Your task to perform on an android device: turn on location history Image 0: 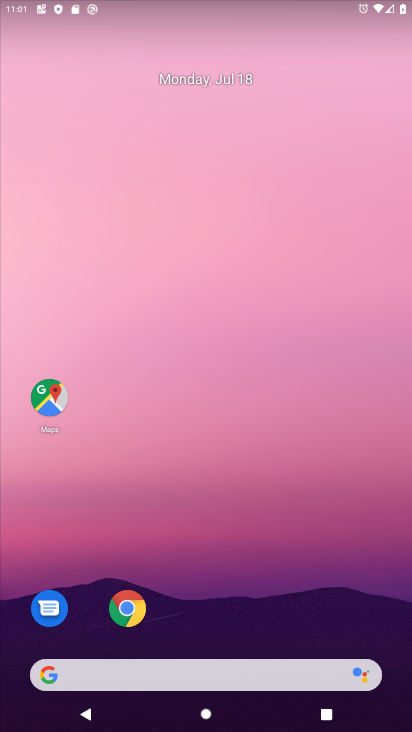
Step 0: drag from (176, 538) to (169, 167)
Your task to perform on an android device: turn on location history Image 1: 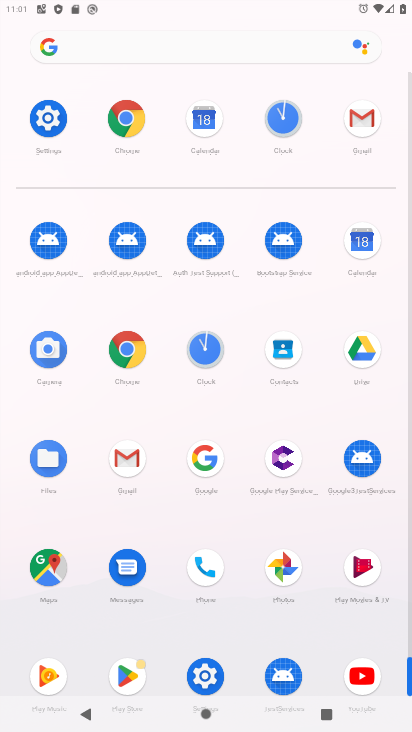
Step 1: click (213, 673)
Your task to perform on an android device: turn on location history Image 2: 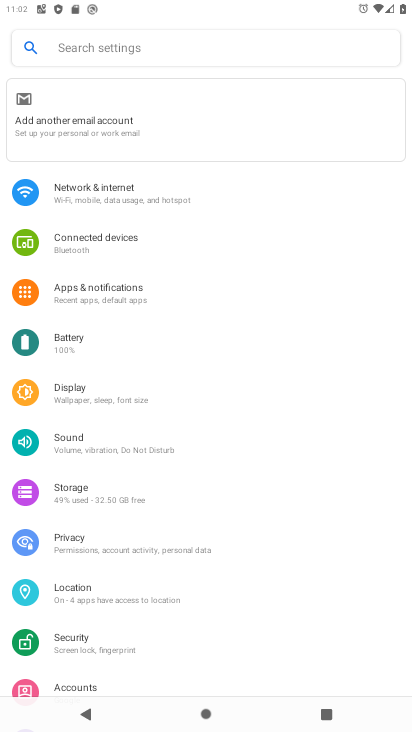
Step 2: click (121, 593)
Your task to perform on an android device: turn on location history Image 3: 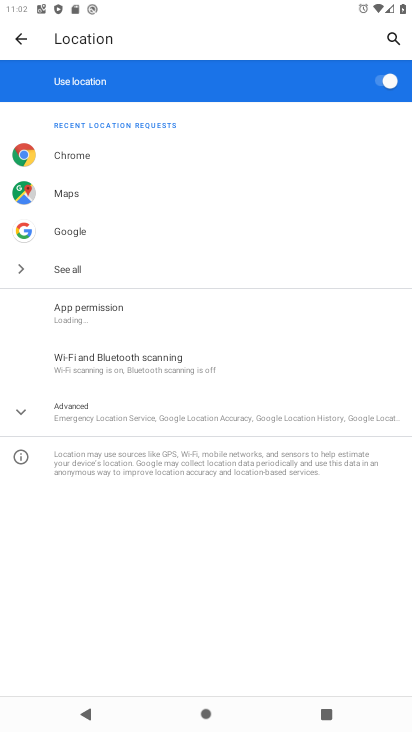
Step 3: click (94, 420)
Your task to perform on an android device: turn on location history Image 4: 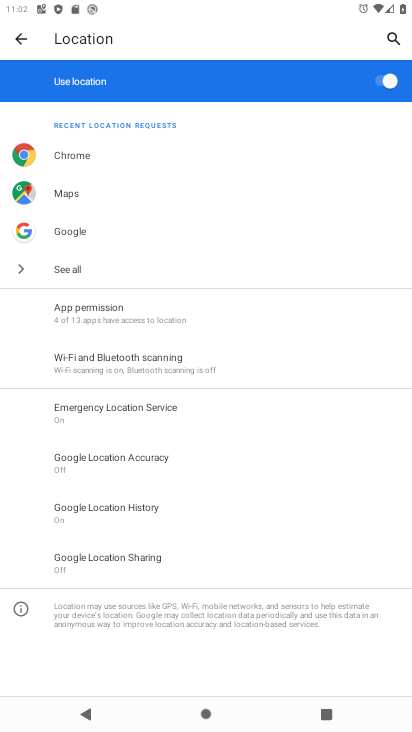
Step 4: click (131, 516)
Your task to perform on an android device: turn on location history Image 5: 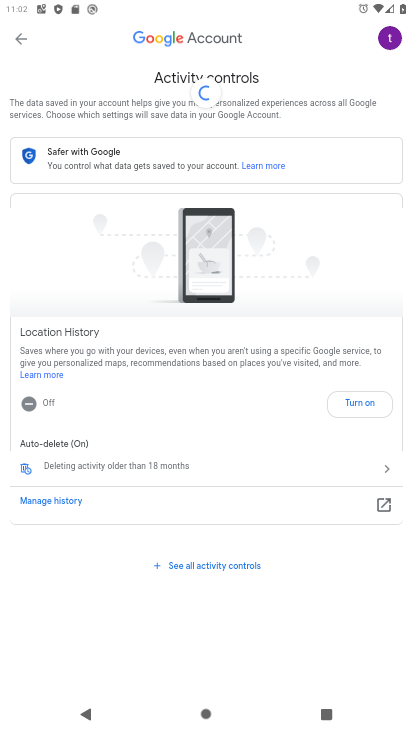
Step 5: click (371, 409)
Your task to perform on an android device: turn on location history Image 6: 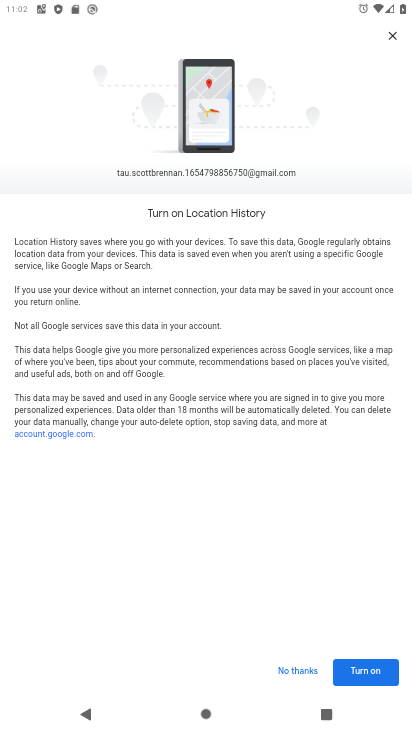
Step 6: click (376, 668)
Your task to perform on an android device: turn on location history Image 7: 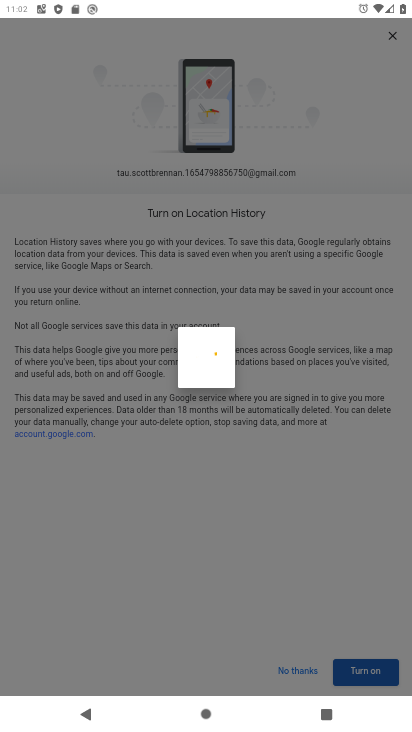
Step 7: click (375, 669)
Your task to perform on an android device: turn on location history Image 8: 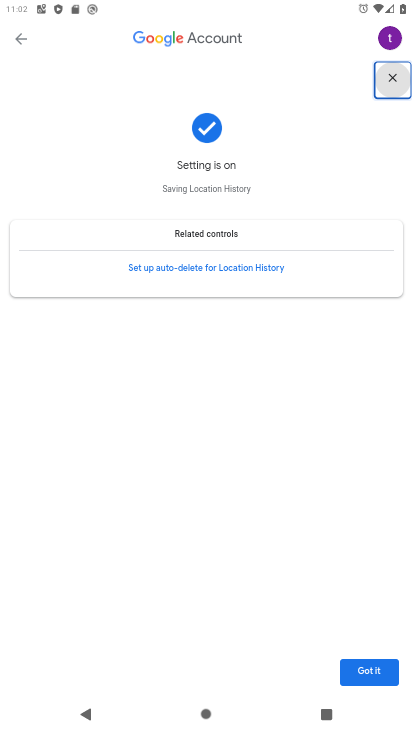
Step 8: click (367, 674)
Your task to perform on an android device: turn on location history Image 9: 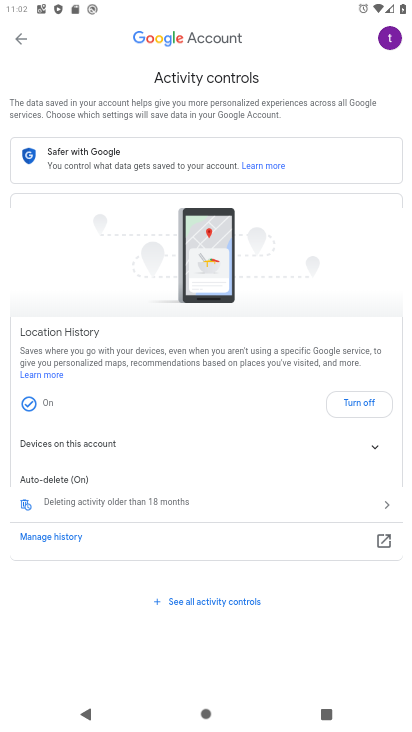
Step 9: task complete